Your task to perform on an android device: toggle notifications settings in the gmail app Image 0: 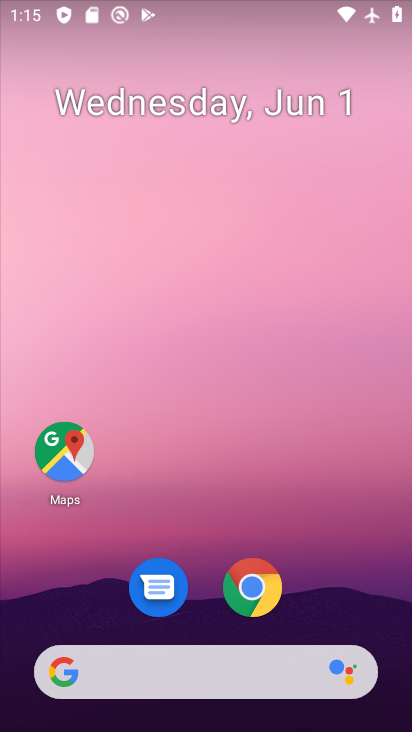
Step 0: drag from (320, 493) to (217, 21)
Your task to perform on an android device: toggle notifications settings in the gmail app Image 1: 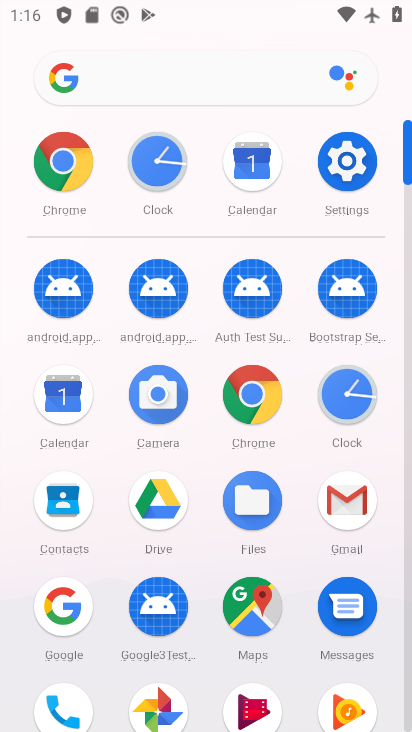
Step 1: click (353, 495)
Your task to perform on an android device: toggle notifications settings in the gmail app Image 2: 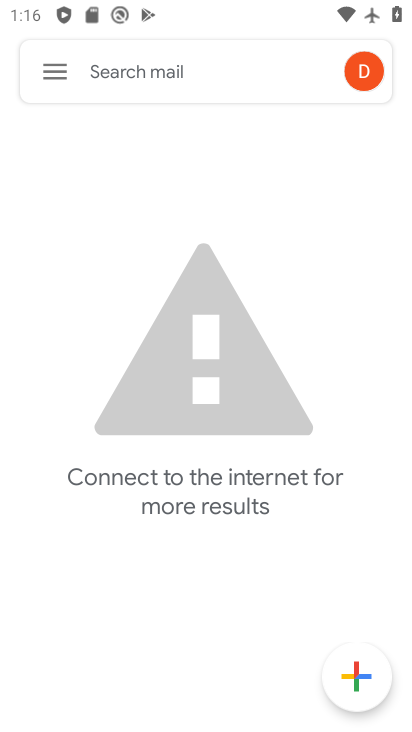
Step 2: click (54, 70)
Your task to perform on an android device: toggle notifications settings in the gmail app Image 3: 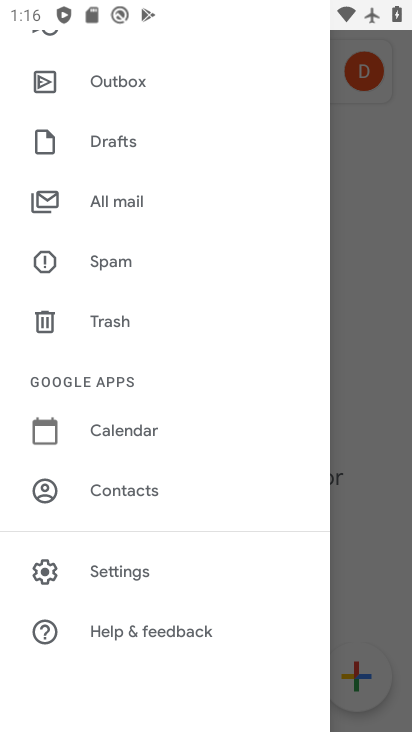
Step 3: click (113, 570)
Your task to perform on an android device: toggle notifications settings in the gmail app Image 4: 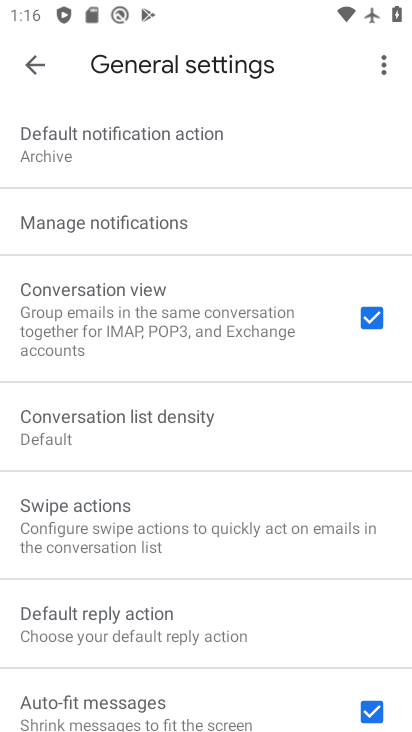
Step 4: click (141, 217)
Your task to perform on an android device: toggle notifications settings in the gmail app Image 5: 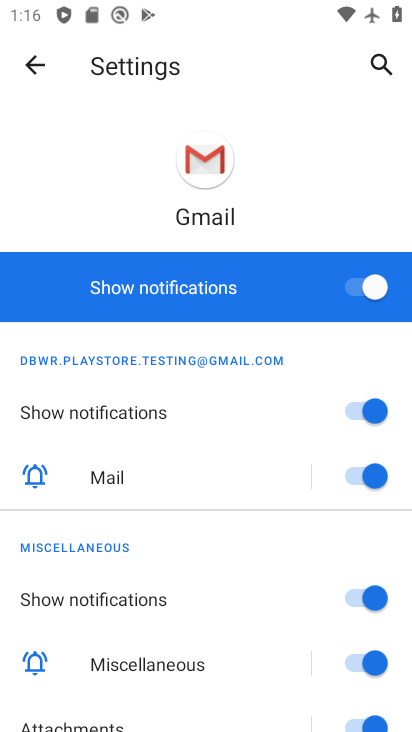
Step 5: click (374, 288)
Your task to perform on an android device: toggle notifications settings in the gmail app Image 6: 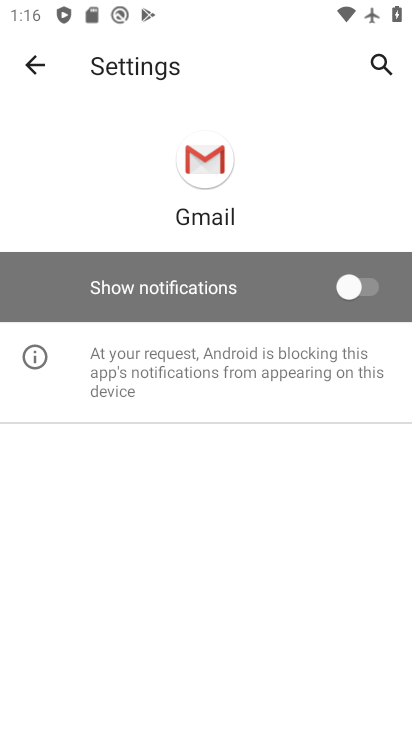
Step 6: task complete